Your task to perform on an android device: Check the weather Image 0: 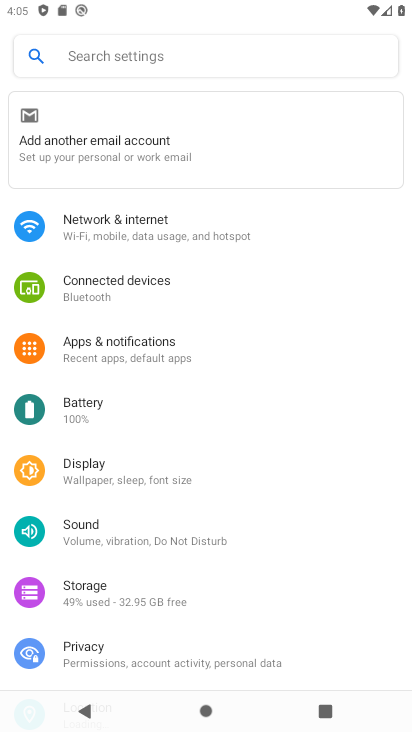
Step 0: press home button
Your task to perform on an android device: Check the weather Image 1: 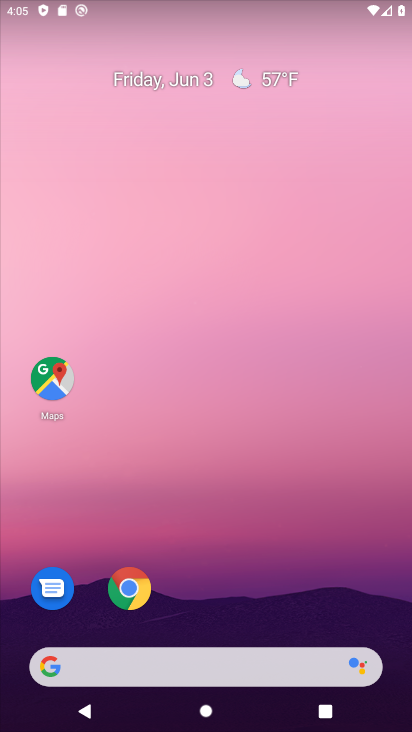
Step 1: click (198, 672)
Your task to perform on an android device: Check the weather Image 2: 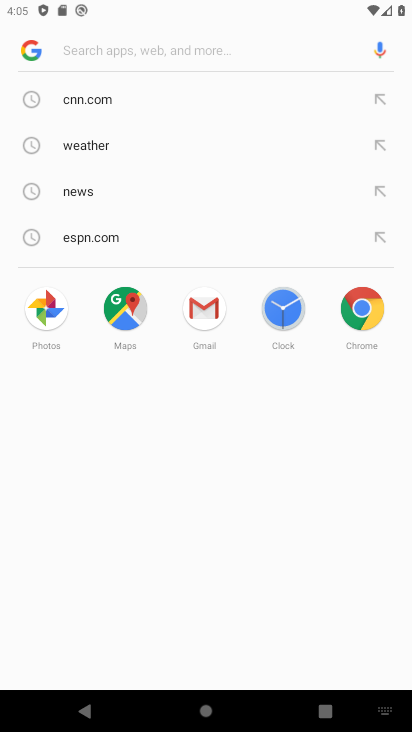
Step 2: click (73, 158)
Your task to perform on an android device: Check the weather Image 3: 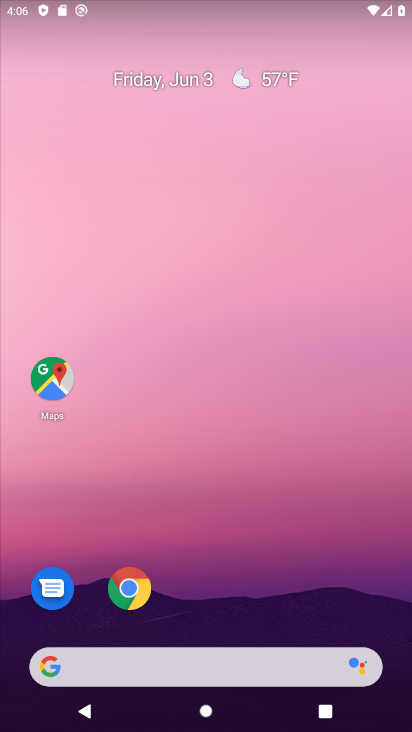
Step 3: click (273, 667)
Your task to perform on an android device: Check the weather Image 4: 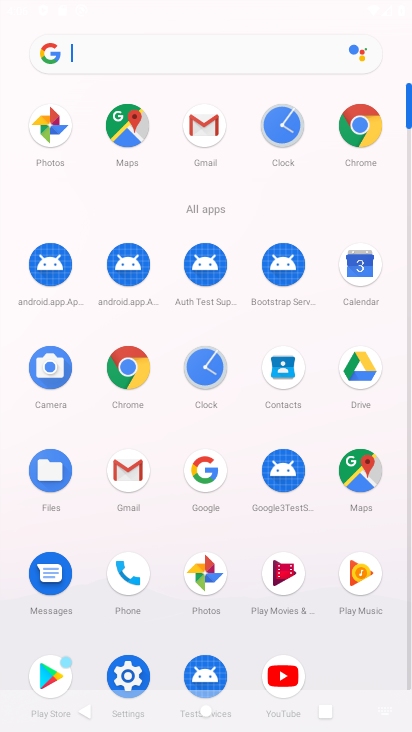
Step 4: click (144, 59)
Your task to perform on an android device: Check the weather Image 5: 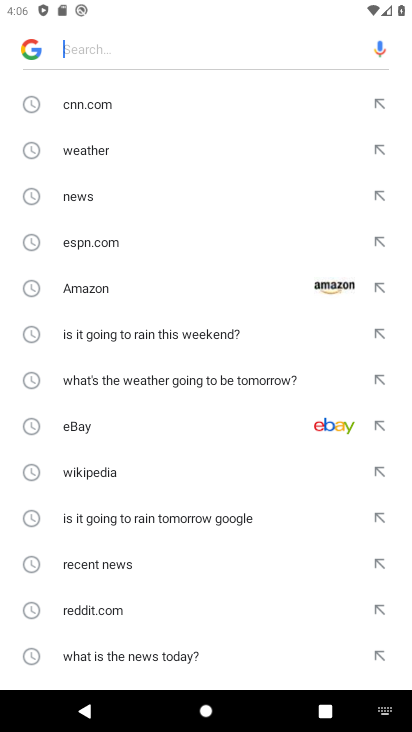
Step 5: click (117, 144)
Your task to perform on an android device: Check the weather Image 6: 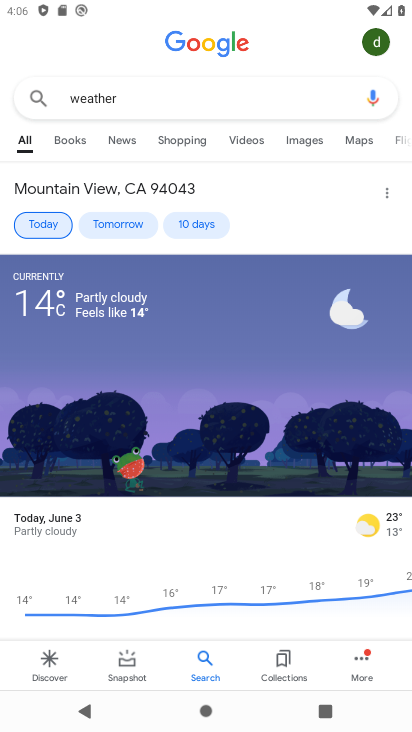
Step 6: task complete